Your task to perform on an android device: delete browsing data in the chrome app Image 0: 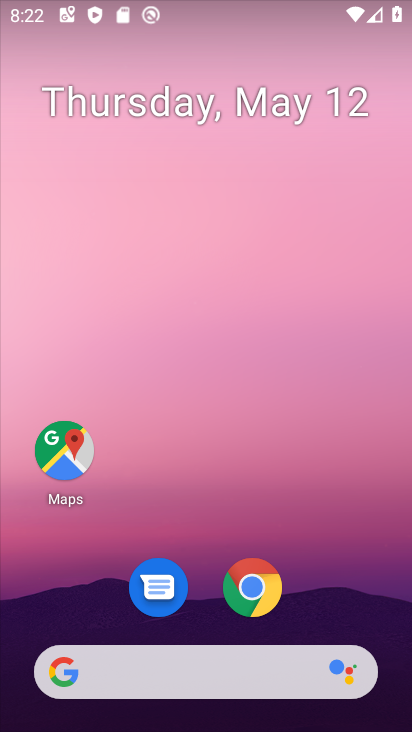
Step 0: drag from (373, 619) to (302, 223)
Your task to perform on an android device: delete browsing data in the chrome app Image 1: 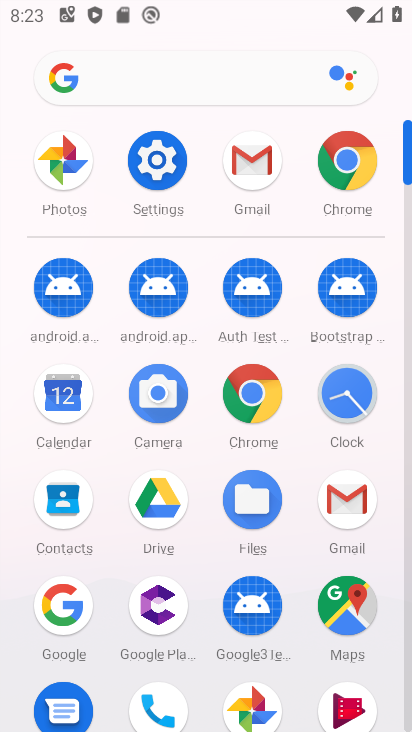
Step 1: click (248, 385)
Your task to perform on an android device: delete browsing data in the chrome app Image 2: 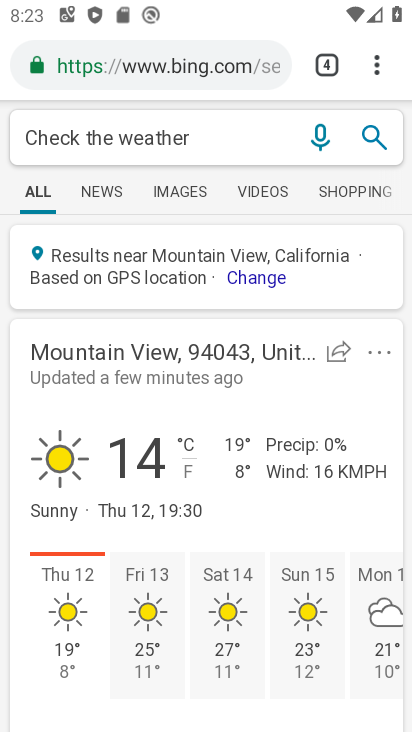
Step 2: click (360, 62)
Your task to perform on an android device: delete browsing data in the chrome app Image 3: 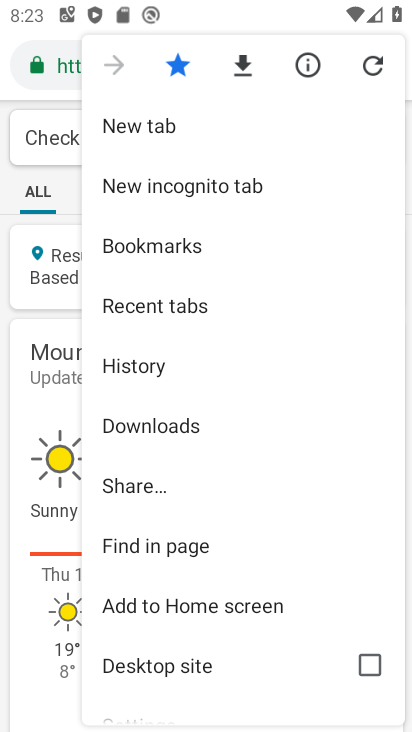
Step 3: click (177, 240)
Your task to perform on an android device: delete browsing data in the chrome app Image 4: 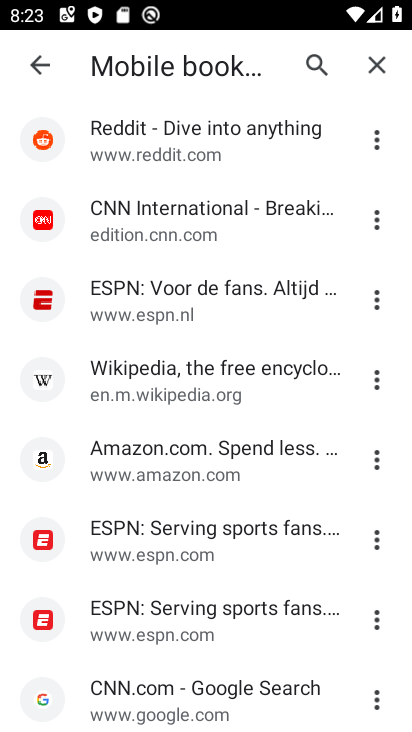
Step 4: click (35, 58)
Your task to perform on an android device: delete browsing data in the chrome app Image 5: 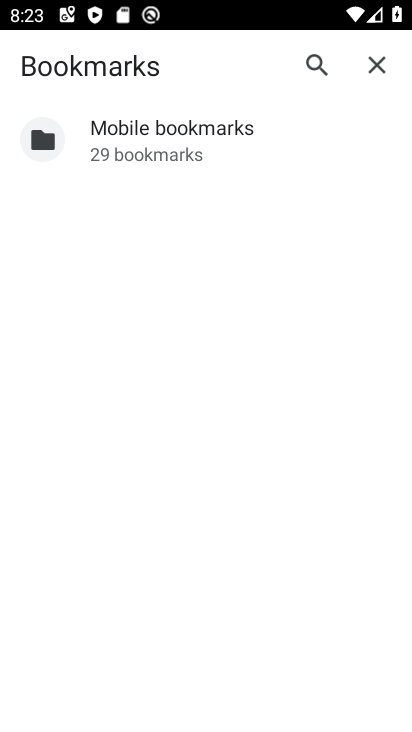
Step 5: click (383, 65)
Your task to perform on an android device: delete browsing data in the chrome app Image 6: 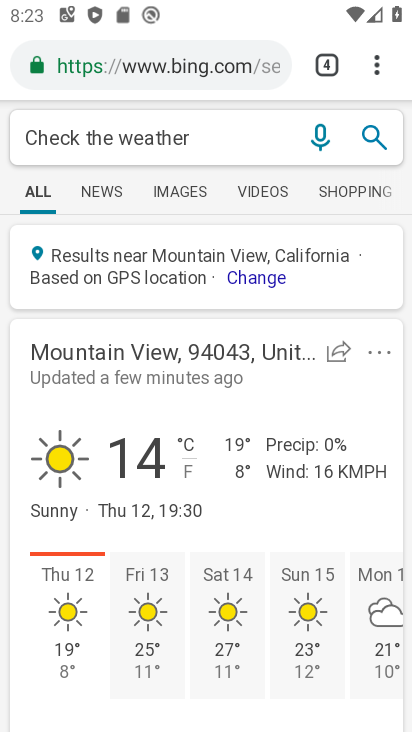
Step 6: click (360, 59)
Your task to perform on an android device: delete browsing data in the chrome app Image 7: 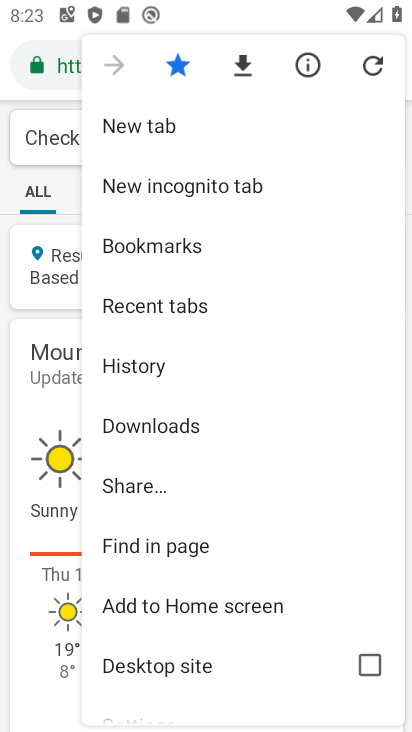
Step 7: click (163, 364)
Your task to perform on an android device: delete browsing data in the chrome app Image 8: 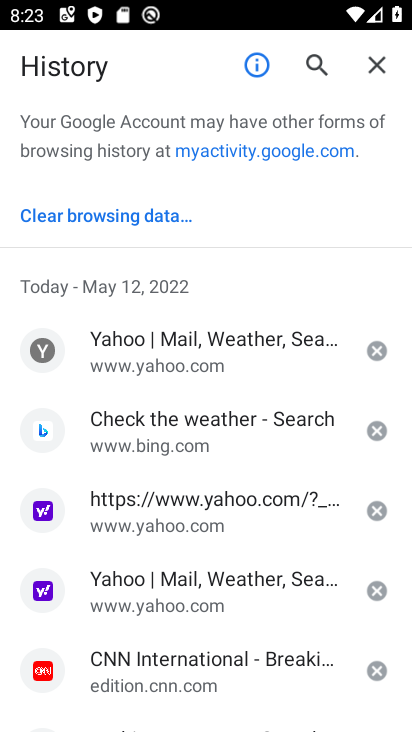
Step 8: click (105, 220)
Your task to perform on an android device: delete browsing data in the chrome app Image 9: 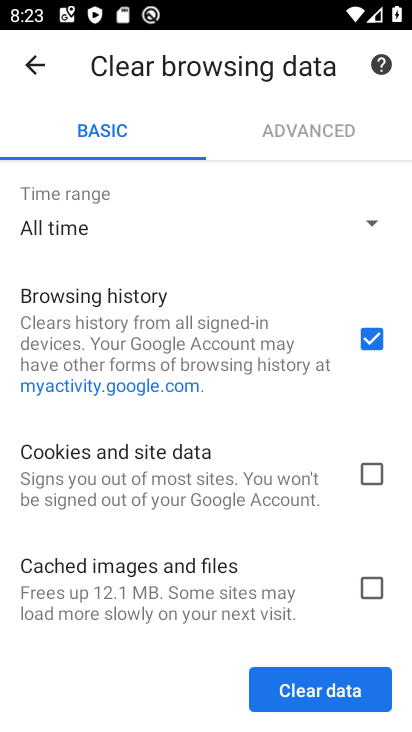
Step 9: click (370, 464)
Your task to perform on an android device: delete browsing data in the chrome app Image 10: 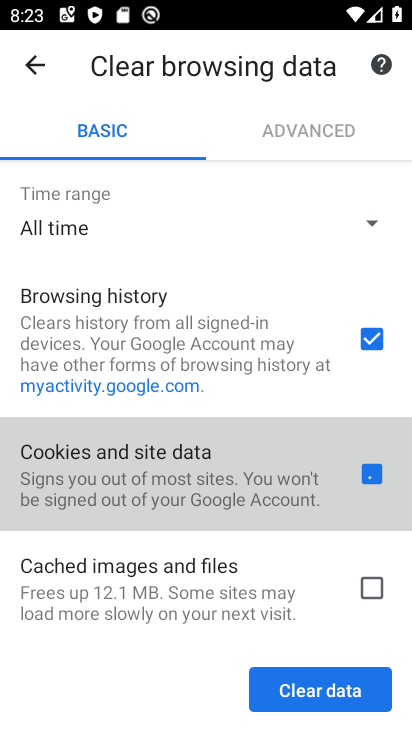
Step 10: click (367, 583)
Your task to perform on an android device: delete browsing data in the chrome app Image 11: 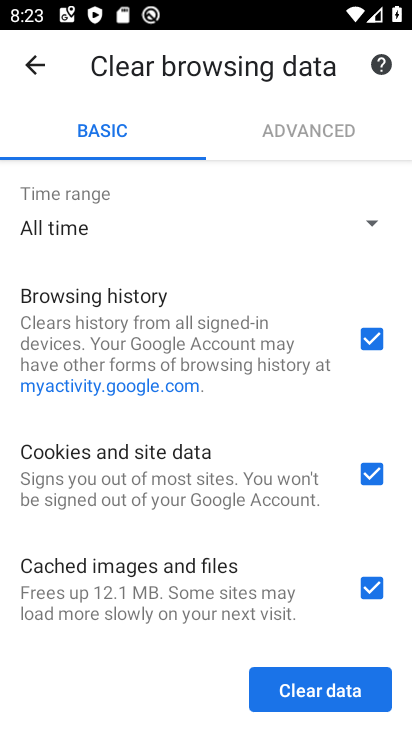
Step 11: click (335, 678)
Your task to perform on an android device: delete browsing data in the chrome app Image 12: 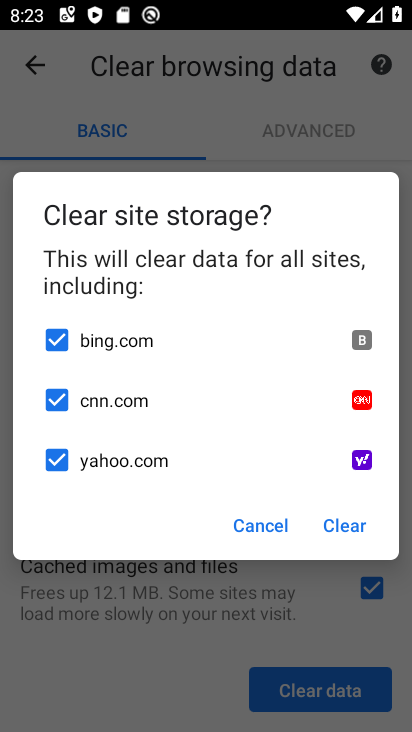
Step 12: click (324, 688)
Your task to perform on an android device: delete browsing data in the chrome app Image 13: 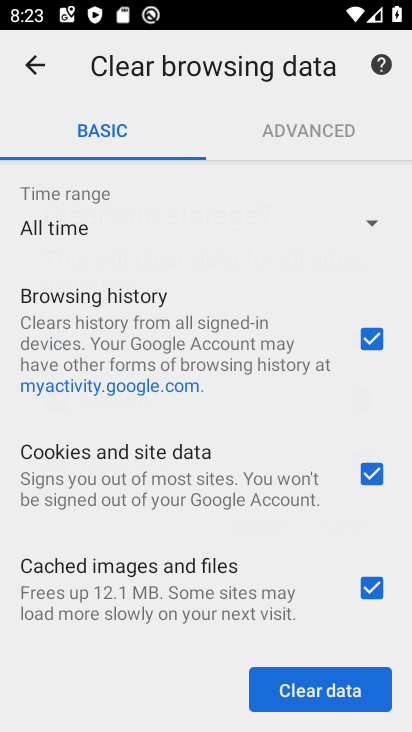
Step 13: click (352, 519)
Your task to perform on an android device: delete browsing data in the chrome app Image 14: 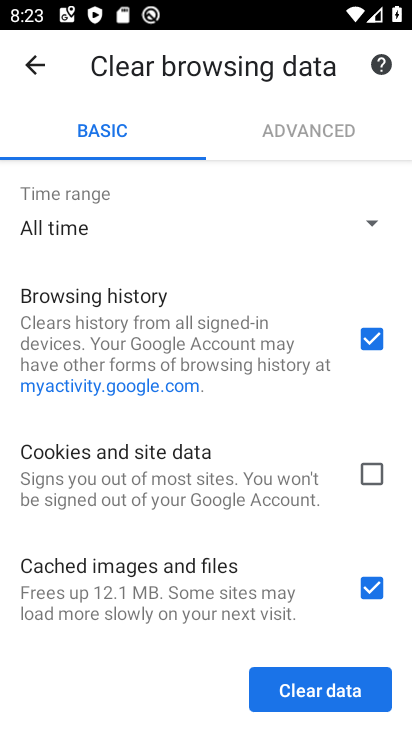
Step 14: click (387, 467)
Your task to perform on an android device: delete browsing data in the chrome app Image 15: 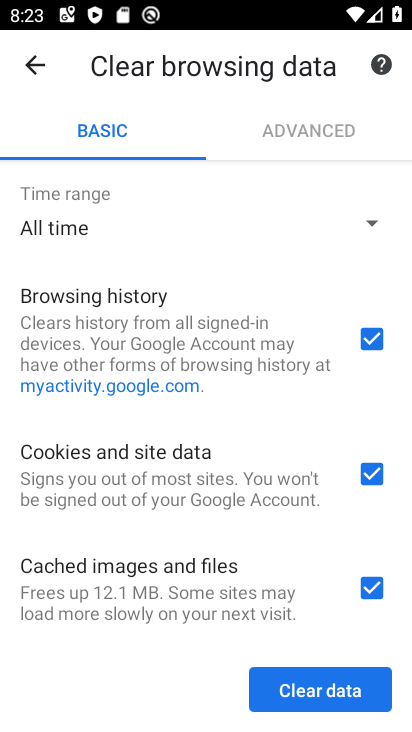
Step 15: click (345, 690)
Your task to perform on an android device: delete browsing data in the chrome app Image 16: 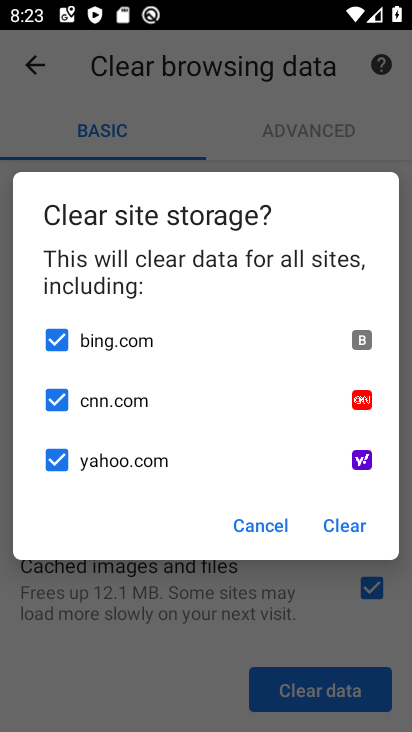
Step 16: click (345, 525)
Your task to perform on an android device: delete browsing data in the chrome app Image 17: 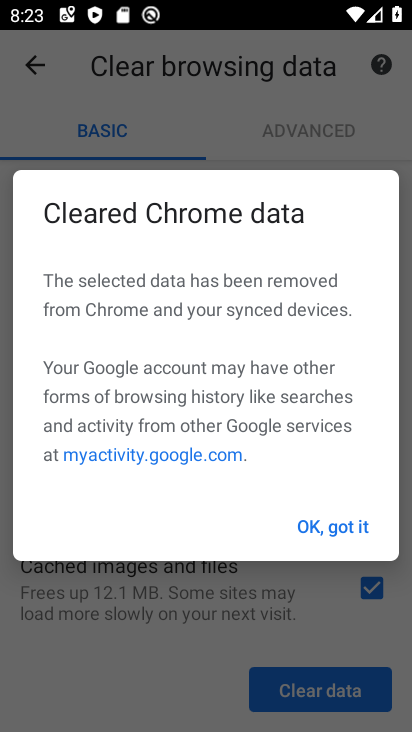
Step 17: click (330, 523)
Your task to perform on an android device: delete browsing data in the chrome app Image 18: 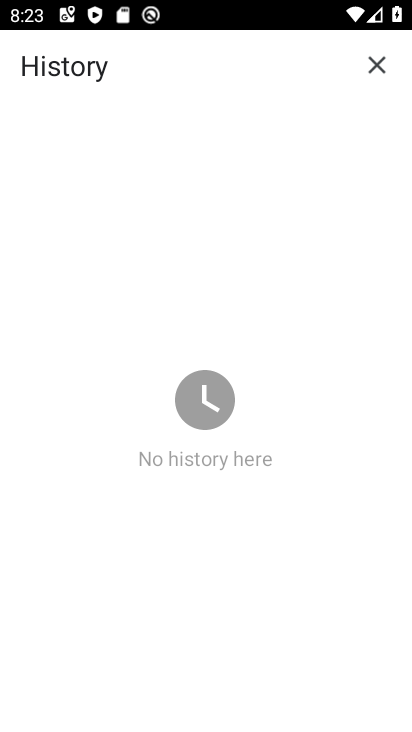
Step 18: task complete